Your task to perform on an android device: Open Chrome and go to settings Image 0: 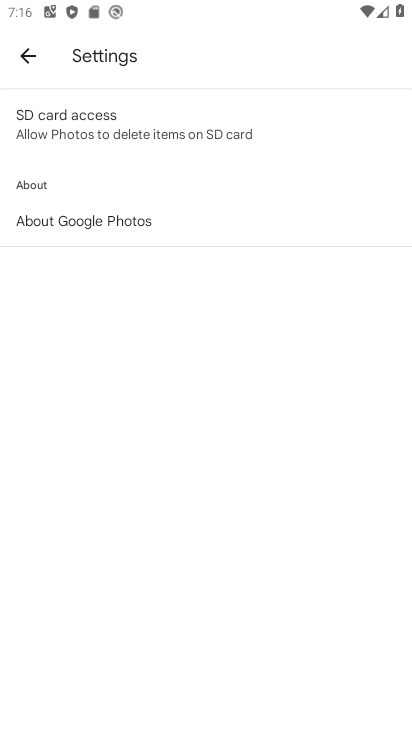
Step 0: press home button
Your task to perform on an android device: Open Chrome and go to settings Image 1: 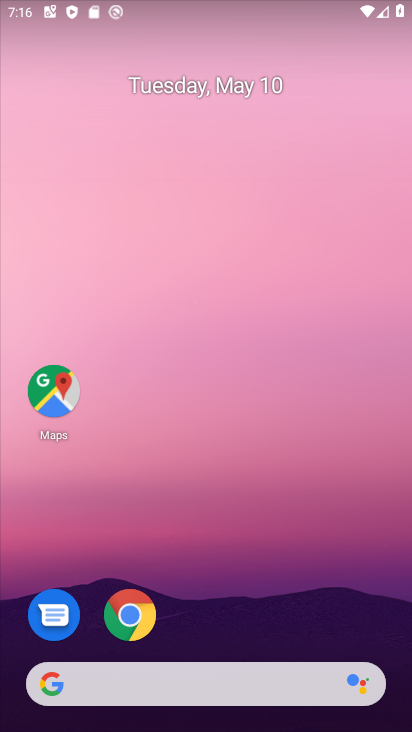
Step 1: click (131, 617)
Your task to perform on an android device: Open Chrome and go to settings Image 2: 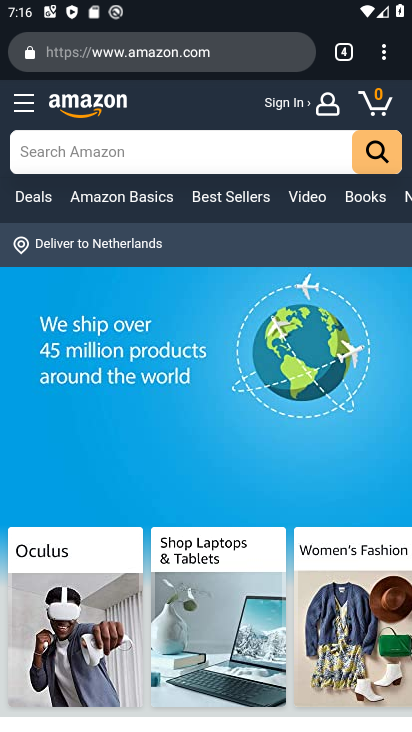
Step 2: click (380, 66)
Your task to perform on an android device: Open Chrome and go to settings Image 3: 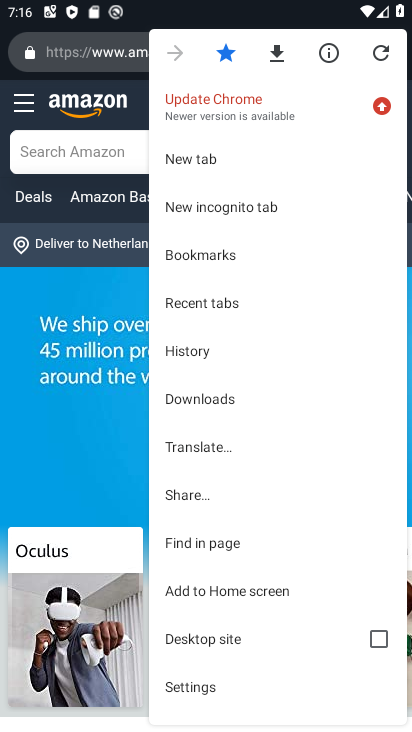
Step 3: click (200, 686)
Your task to perform on an android device: Open Chrome and go to settings Image 4: 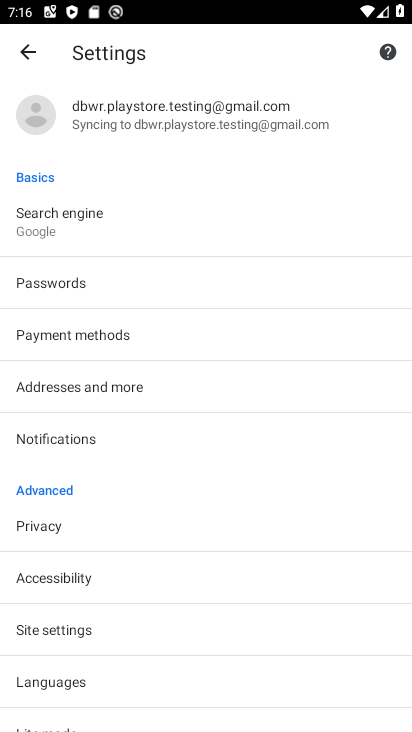
Step 4: task complete